Your task to perform on an android device: open app "Calculator" Image 0: 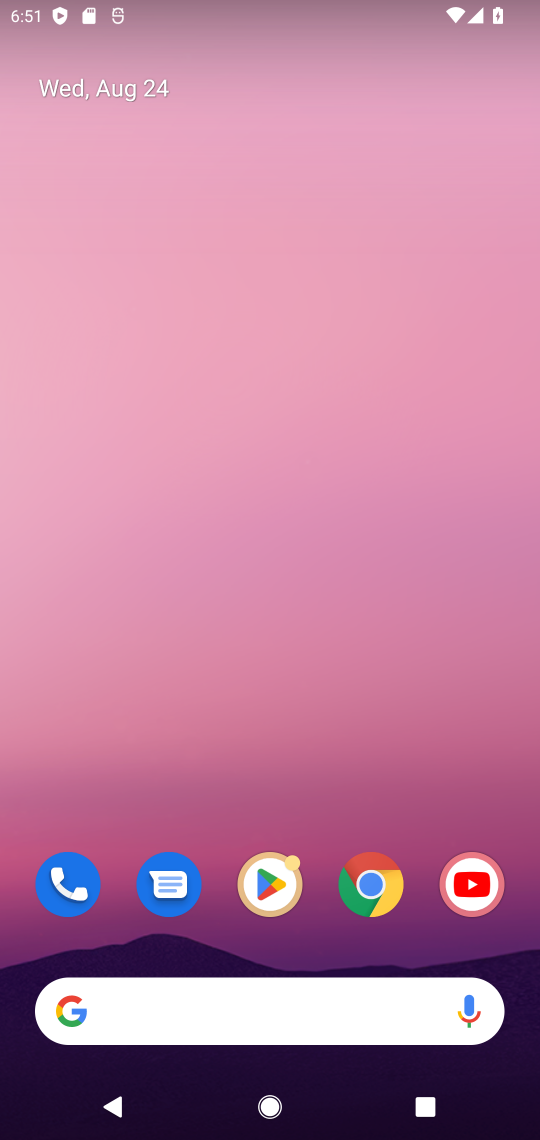
Step 0: drag from (273, 870) to (125, 1)
Your task to perform on an android device: open app "Calculator" Image 1: 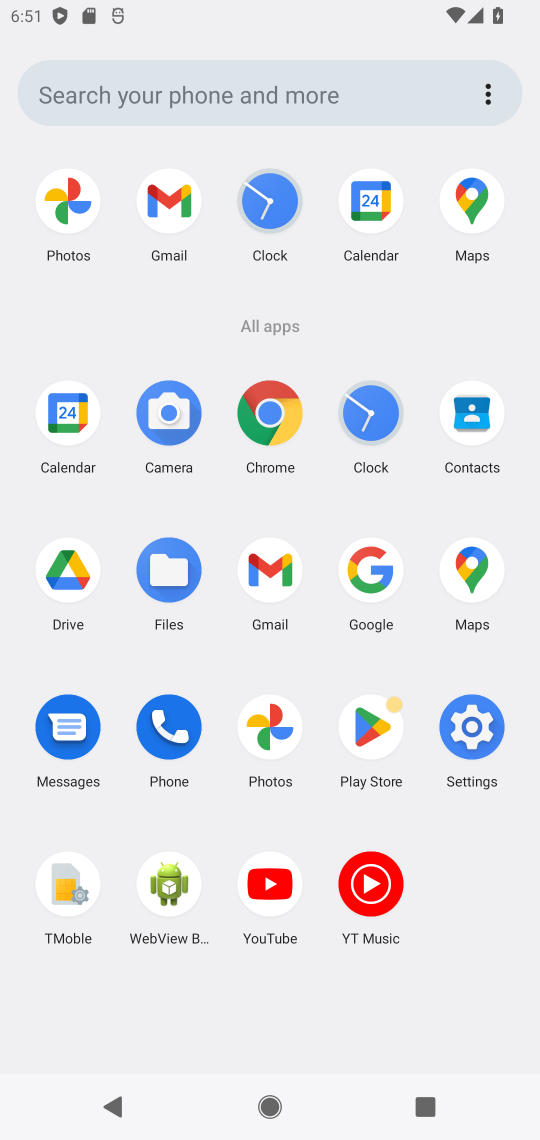
Step 1: click (375, 725)
Your task to perform on an android device: open app "Calculator" Image 2: 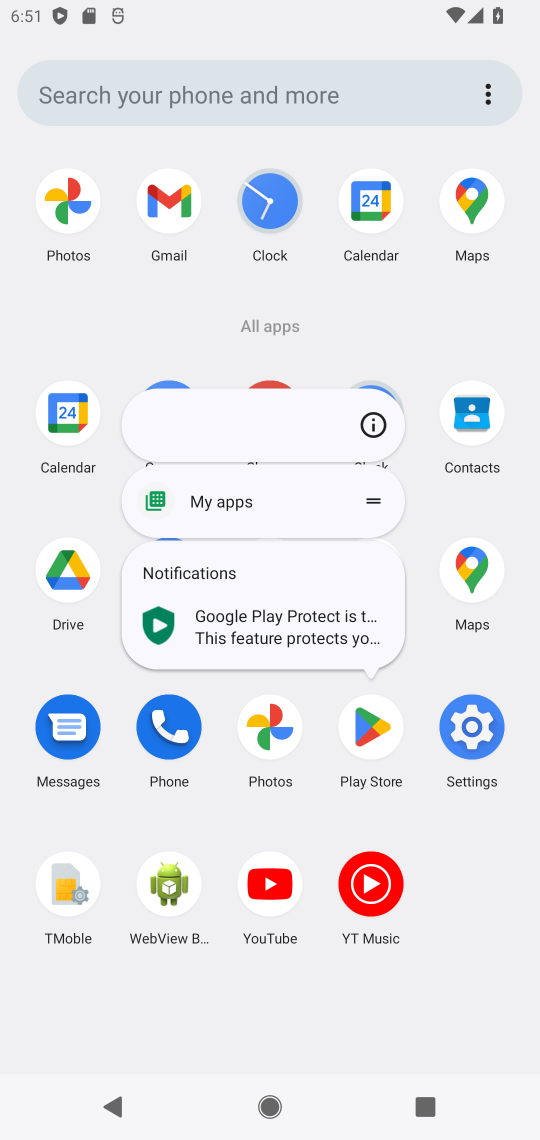
Step 2: click (371, 744)
Your task to perform on an android device: open app "Calculator" Image 3: 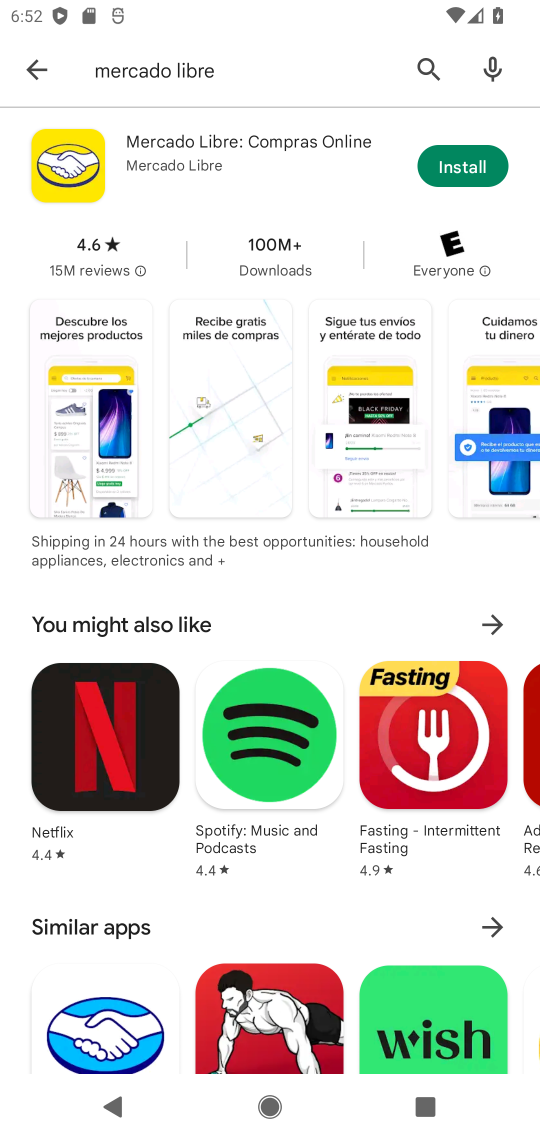
Step 3: click (421, 73)
Your task to perform on an android device: open app "Calculator" Image 4: 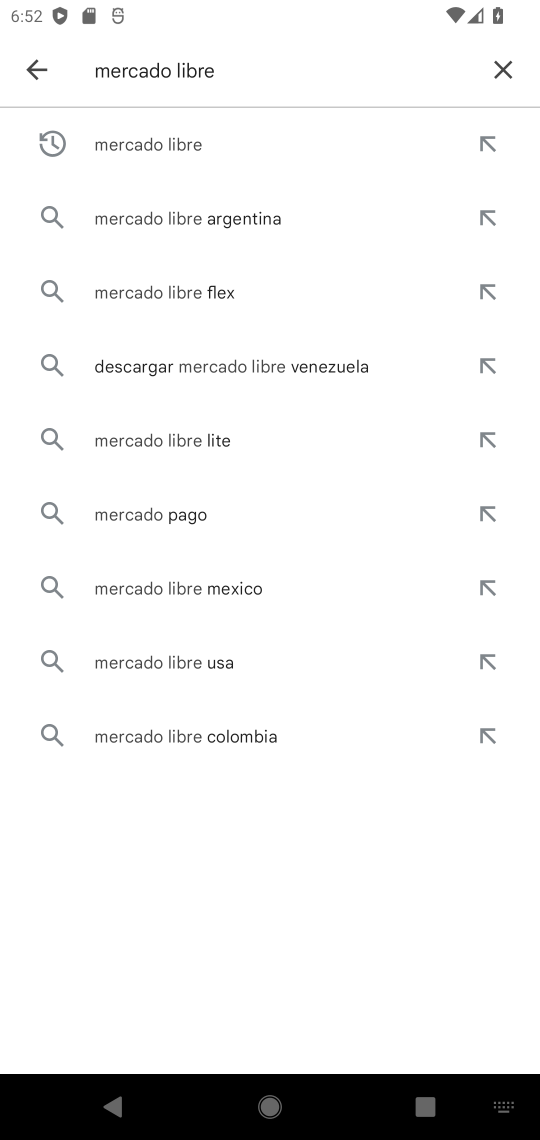
Step 4: click (496, 76)
Your task to perform on an android device: open app "Calculator" Image 5: 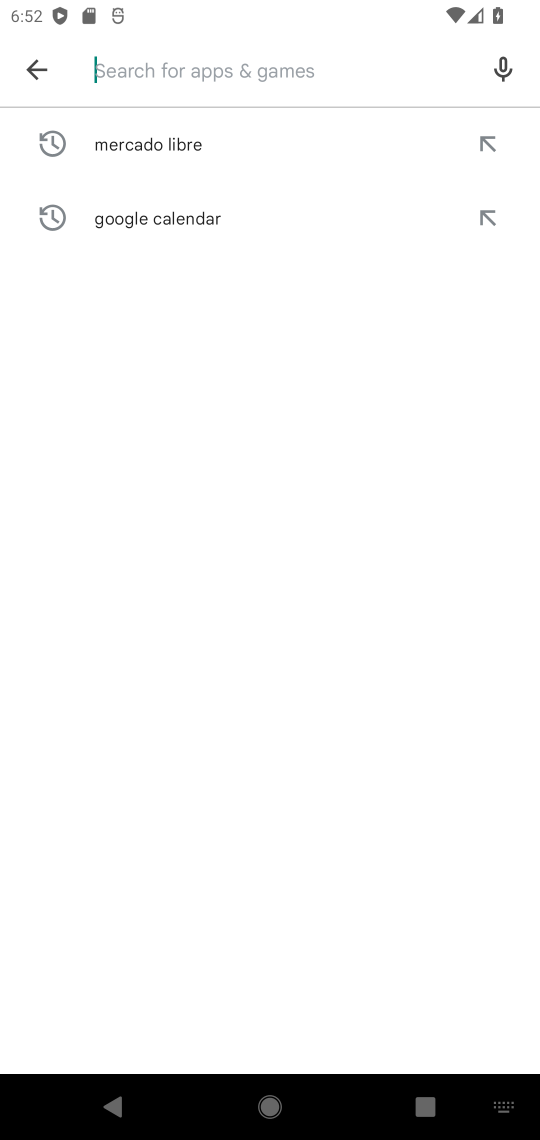
Step 5: type "calculator"
Your task to perform on an android device: open app "Calculator" Image 6: 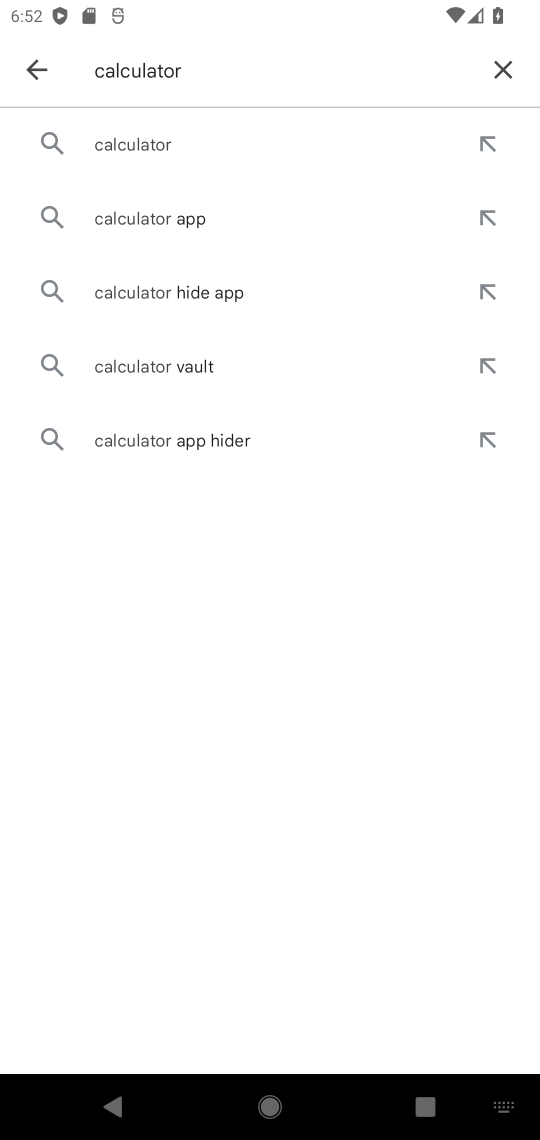
Step 6: click (173, 145)
Your task to perform on an android device: open app "Calculator" Image 7: 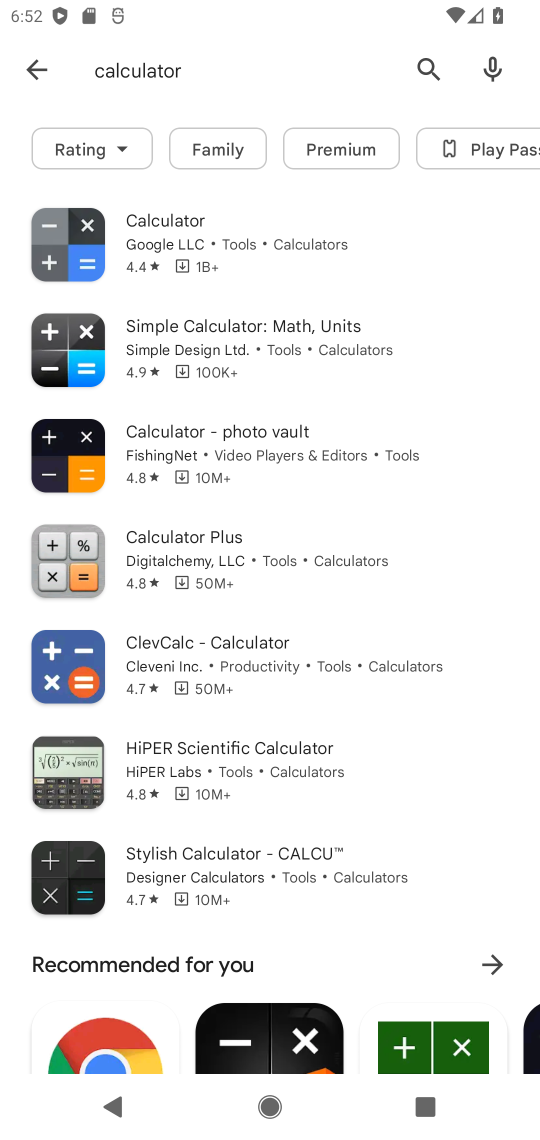
Step 7: click (249, 245)
Your task to perform on an android device: open app "Calculator" Image 8: 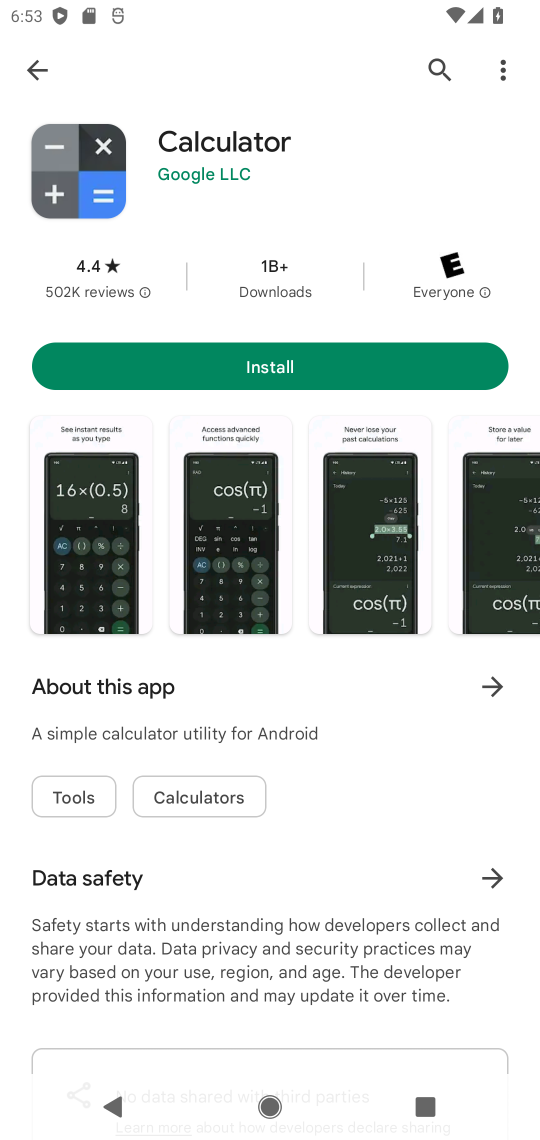
Step 8: task complete